Your task to perform on an android device: Look up the best rated Nike shoes on Nike.com Image 0: 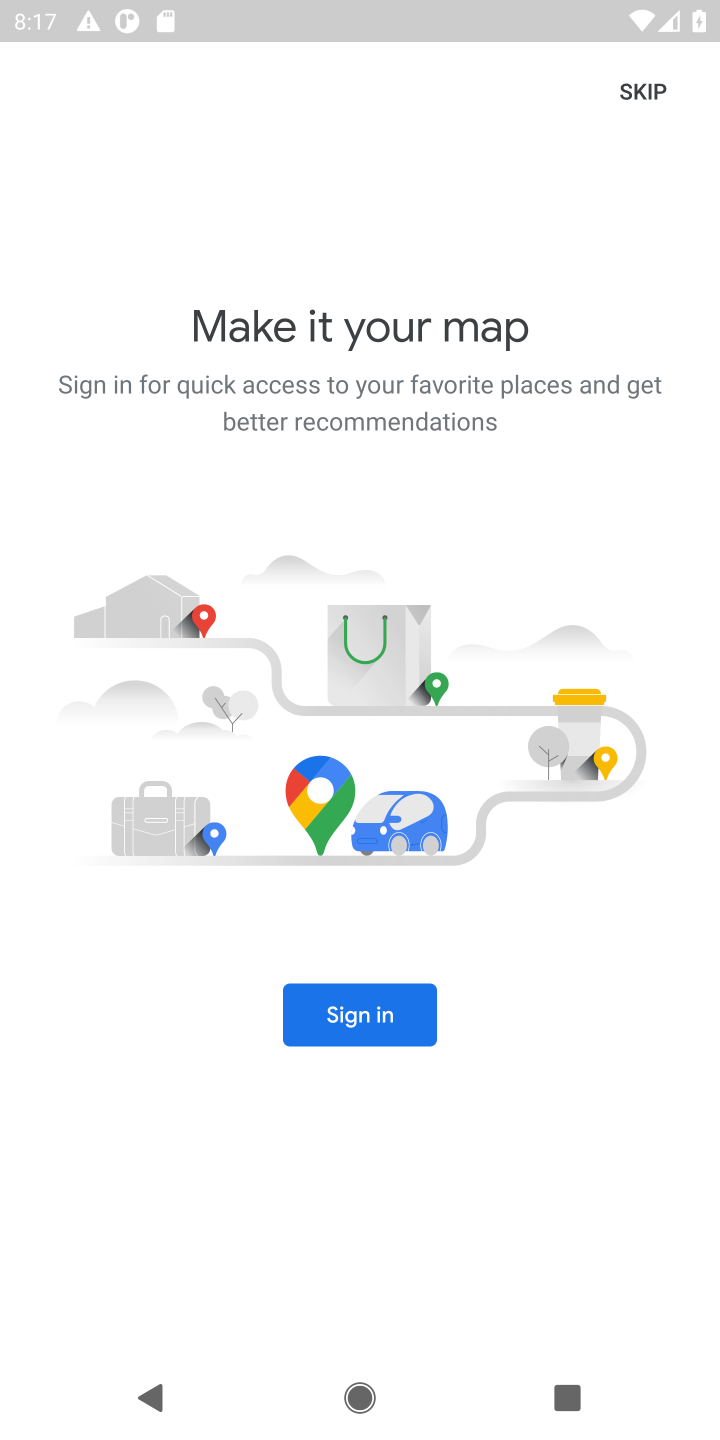
Step 0: press home button
Your task to perform on an android device: Look up the best rated Nike shoes on Nike.com Image 1: 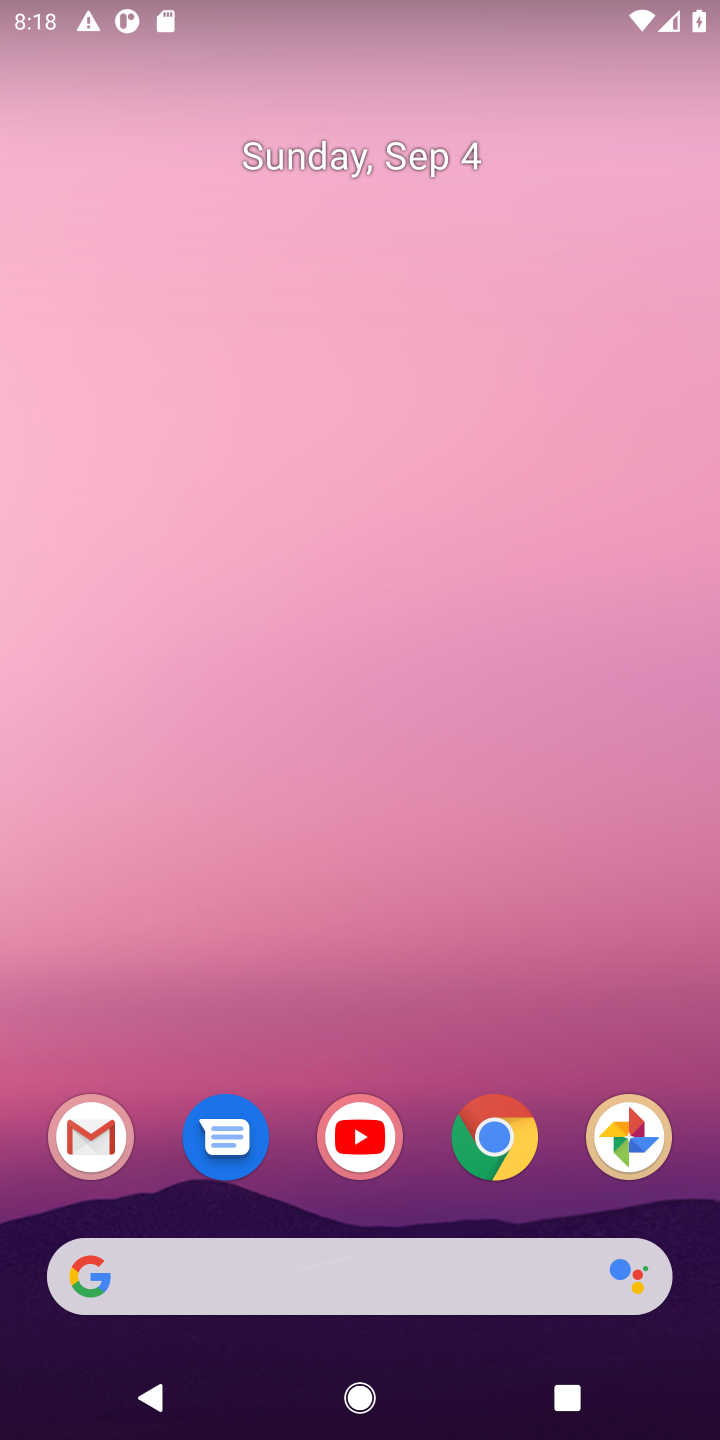
Step 1: click (492, 1137)
Your task to perform on an android device: Look up the best rated Nike shoes on Nike.com Image 2: 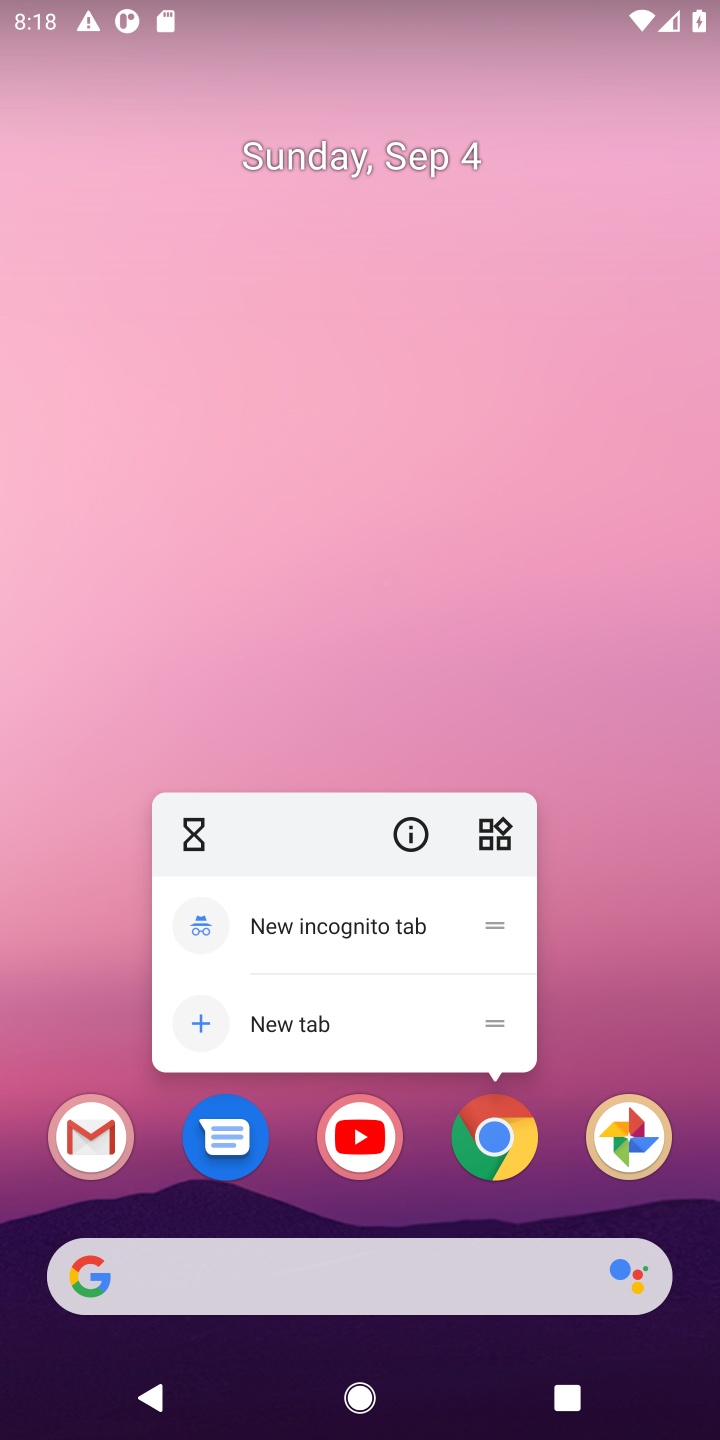
Step 2: click (496, 1138)
Your task to perform on an android device: Look up the best rated Nike shoes on Nike.com Image 3: 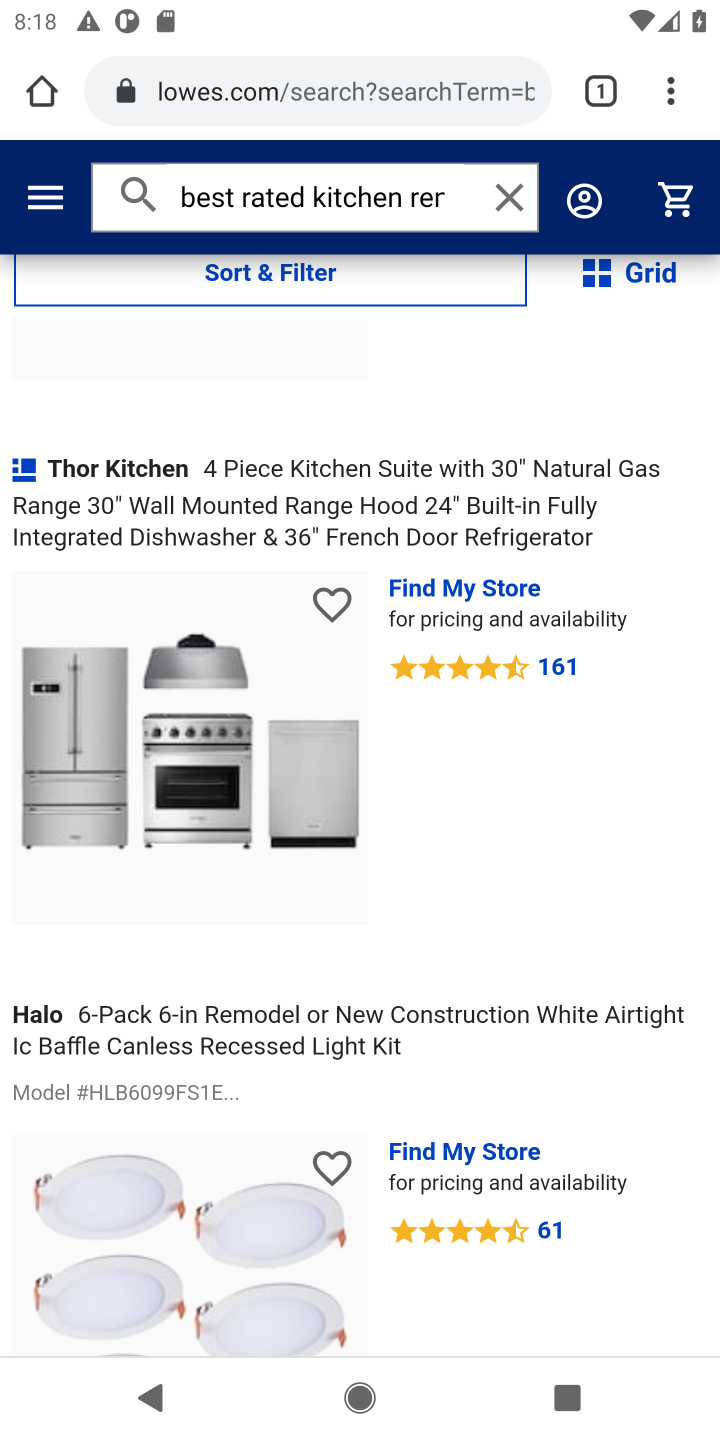
Step 3: click (500, 196)
Your task to perform on an android device: Look up the best rated Nike shoes on Nike.com Image 4: 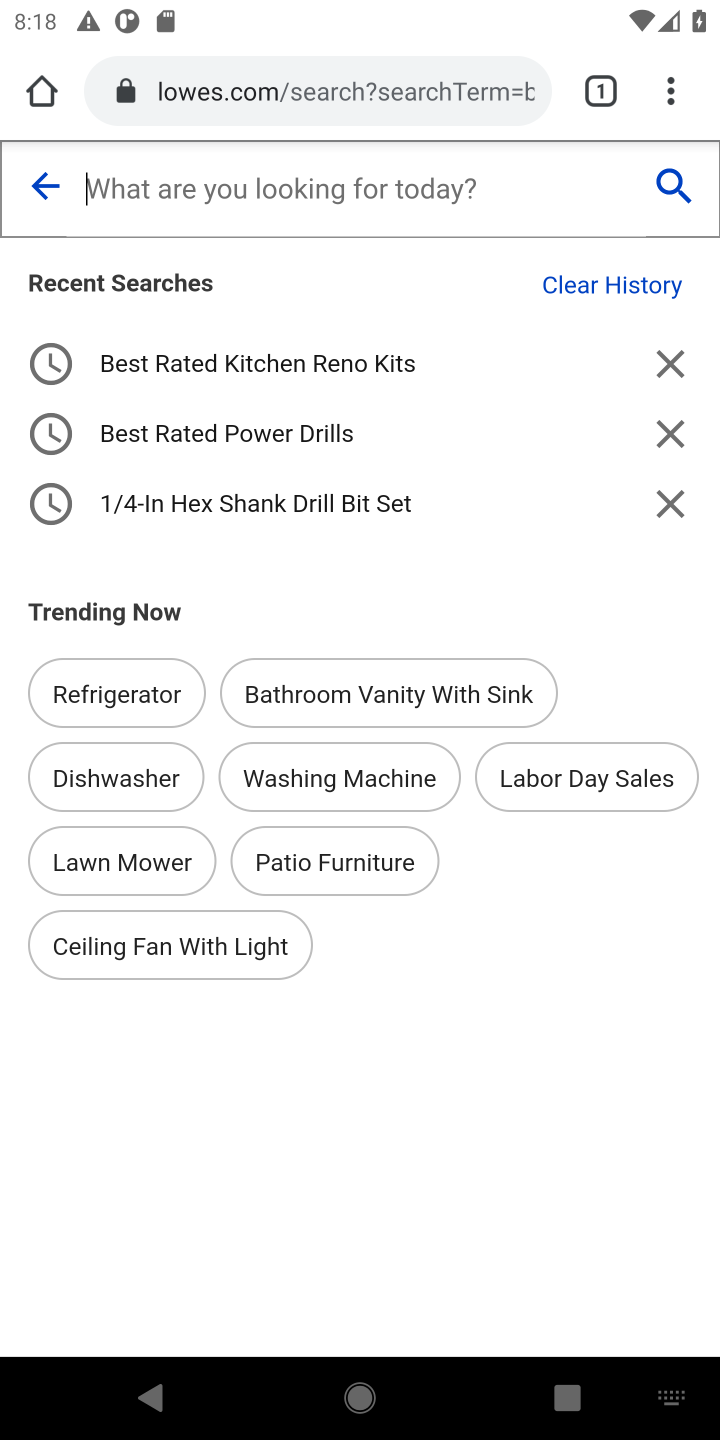
Step 4: click (509, 98)
Your task to perform on an android device: Look up the best rated Nike shoes on Nike.com Image 5: 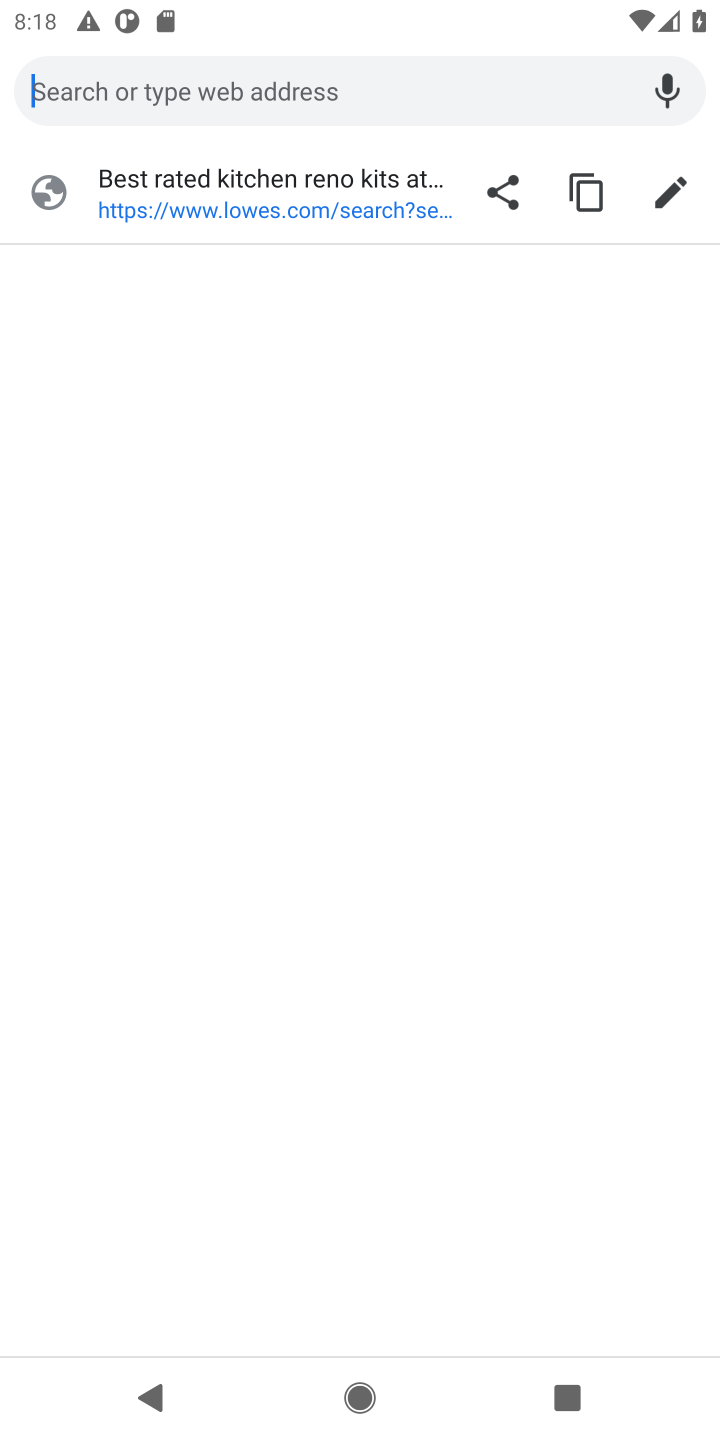
Step 5: type "Nike.com"
Your task to perform on an android device: Look up the best rated Nike shoes on Nike.com Image 6: 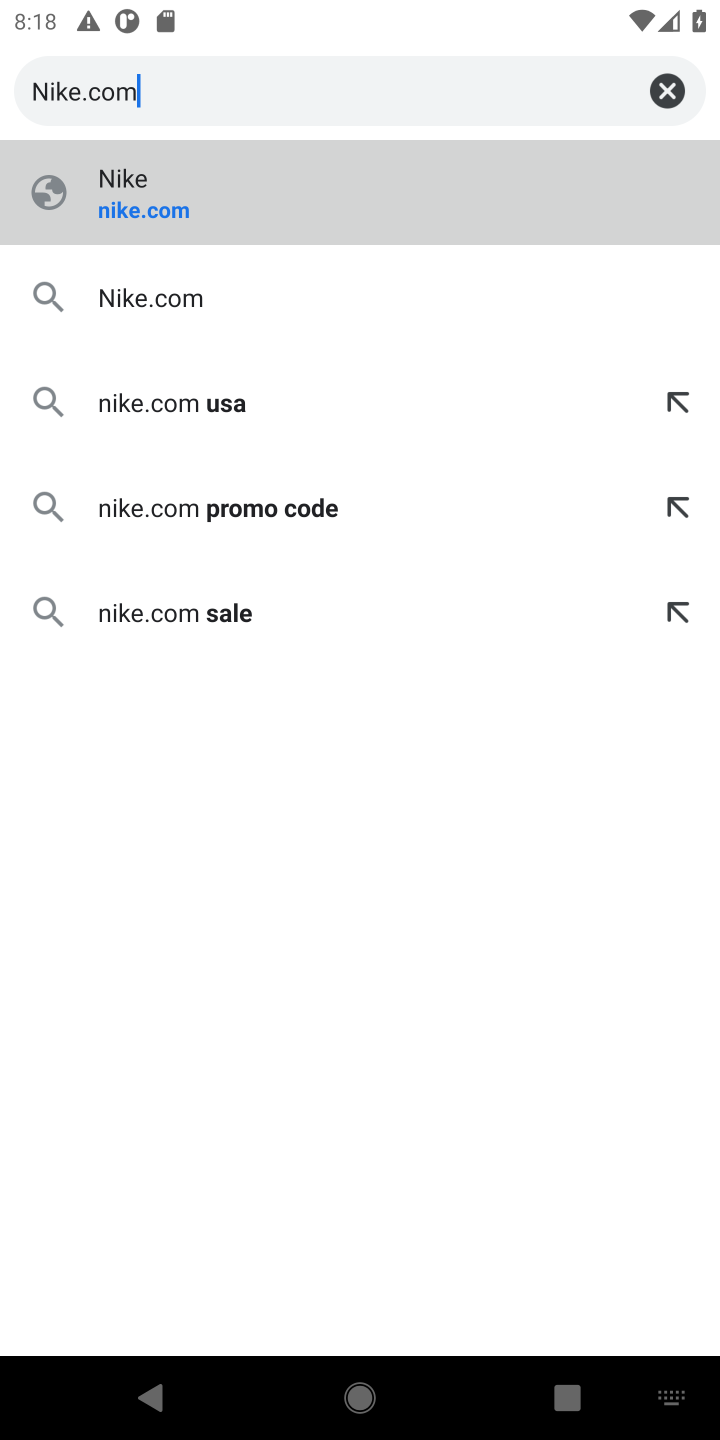
Step 6: click (187, 217)
Your task to perform on an android device: Look up the best rated Nike shoes on Nike.com Image 7: 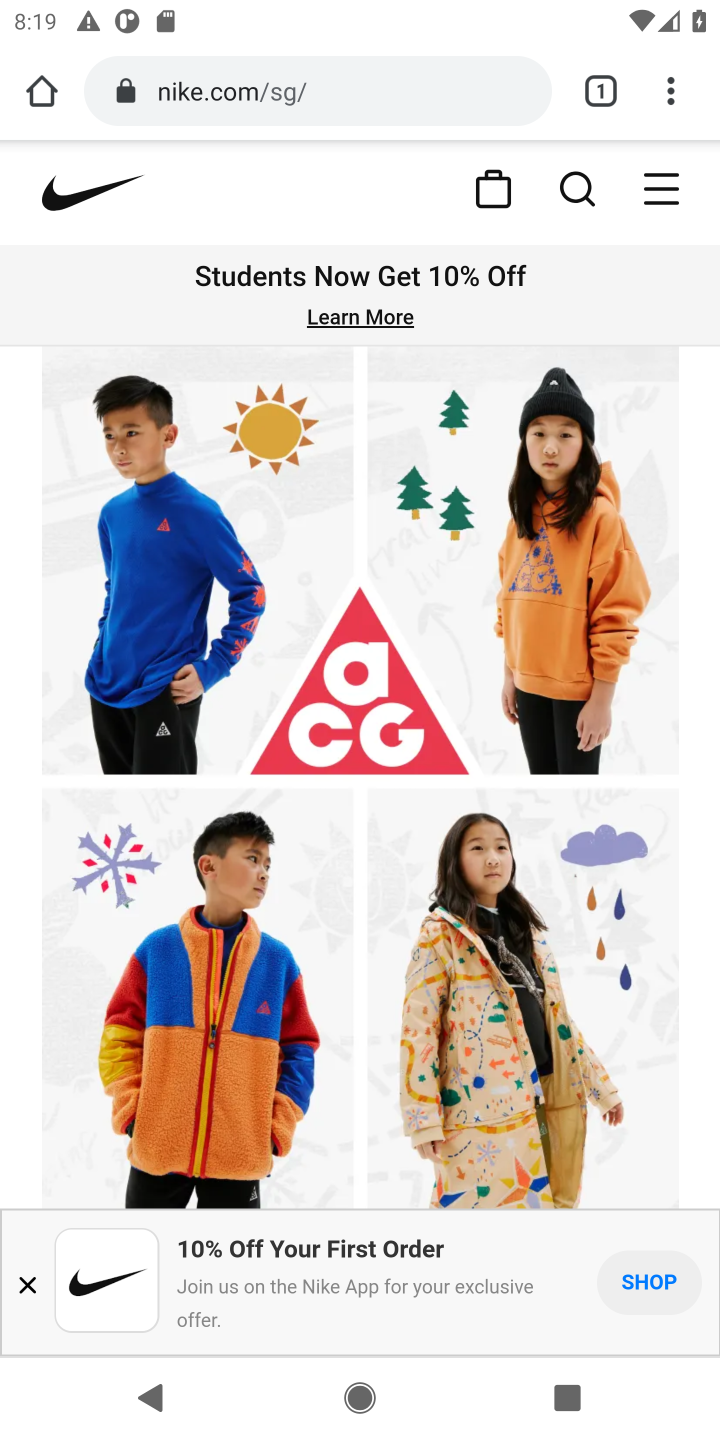
Step 7: click (26, 1286)
Your task to perform on an android device: Look up the best rated Nike shoes on Nike.com Image 8: 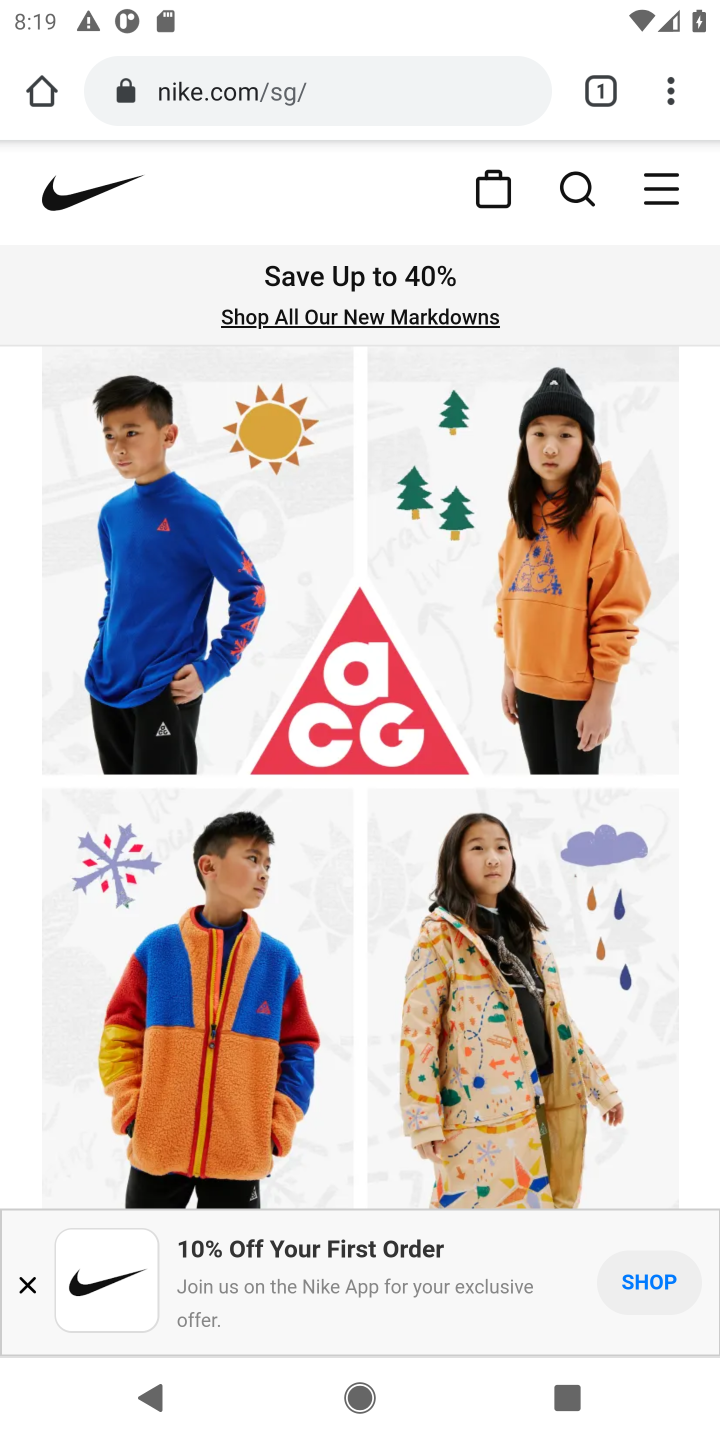
Step 8: click (568, 196)
Your task to perform on an android device: Look up the best rated Nike shoes on Nike.com Image 9: 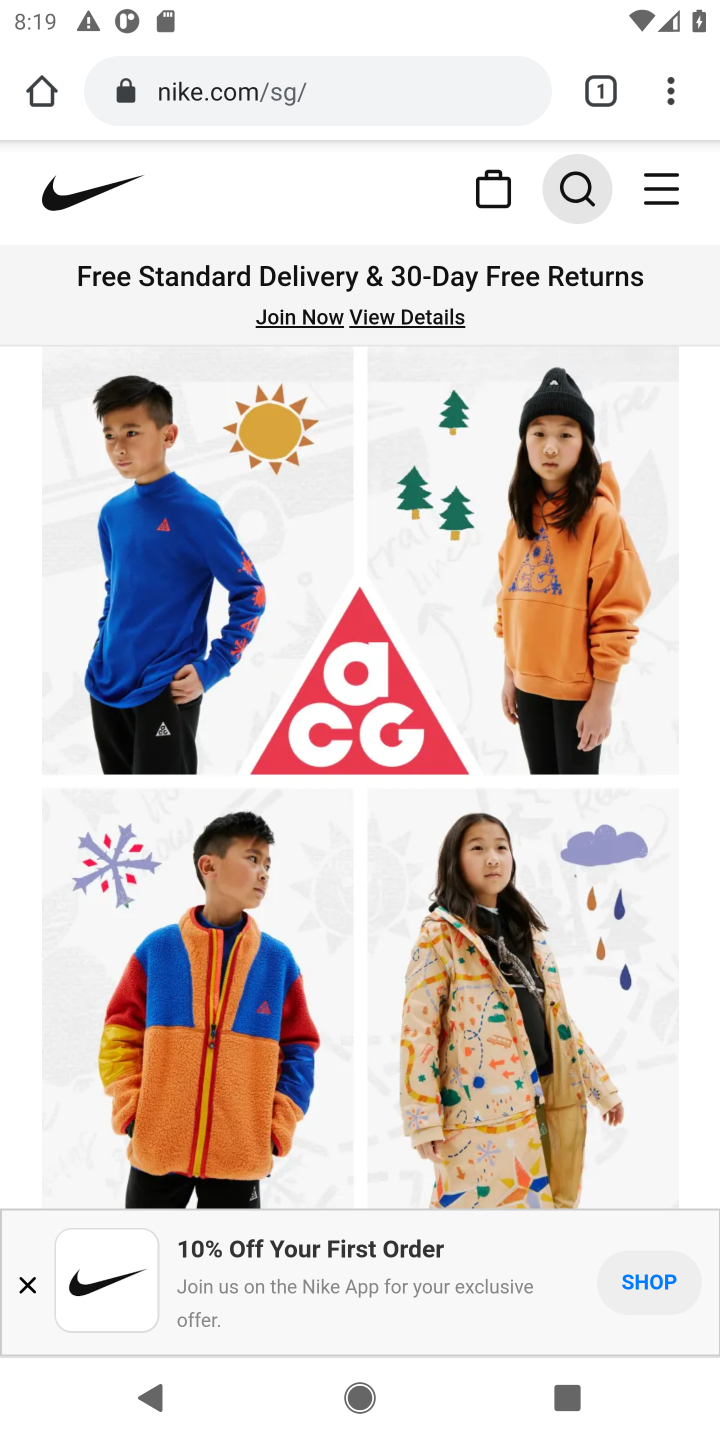
Step 9: click (581, 183)
Your task to perform on an android device: Look up the best rated Nike shoes on Nike.com Image 10: 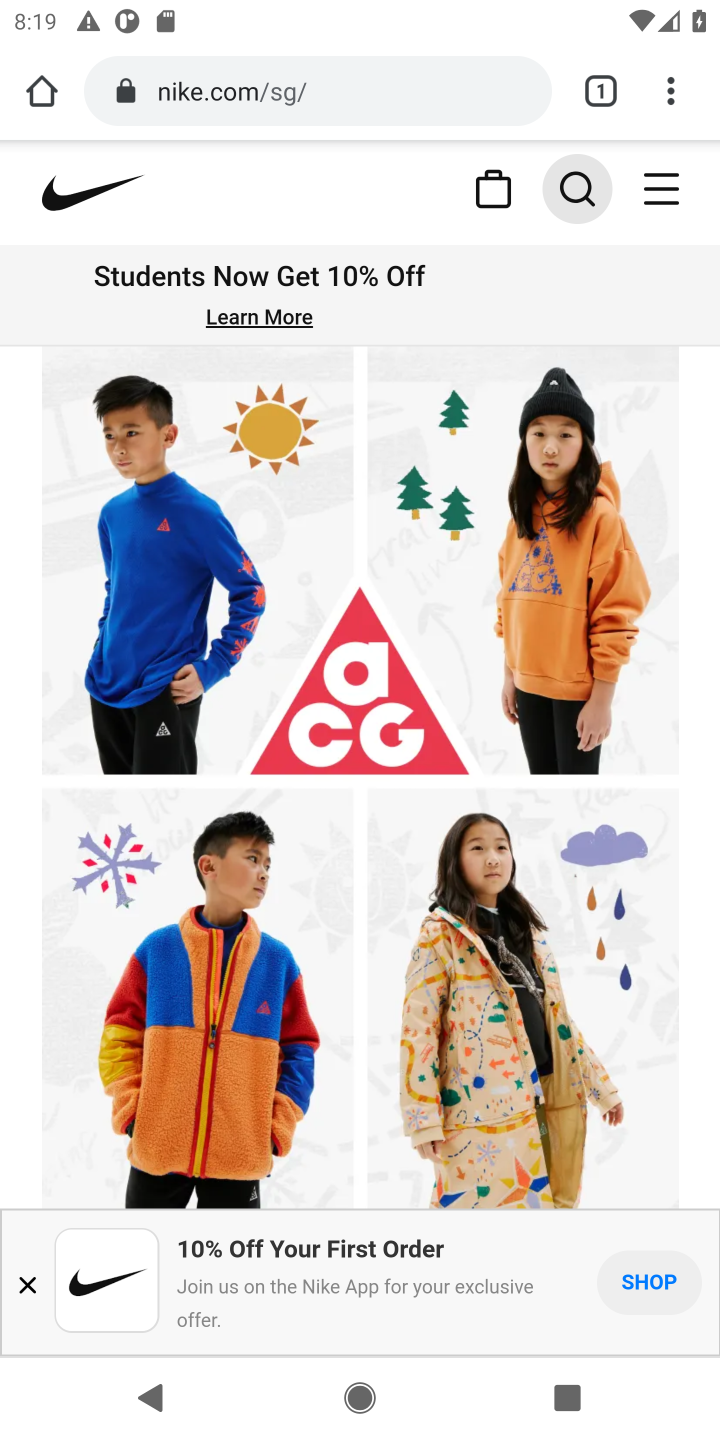
Step 10: click (566, 203)
Your task to perform on an android device: Look up the best rated Nike shoes on Nike.com Image 11: 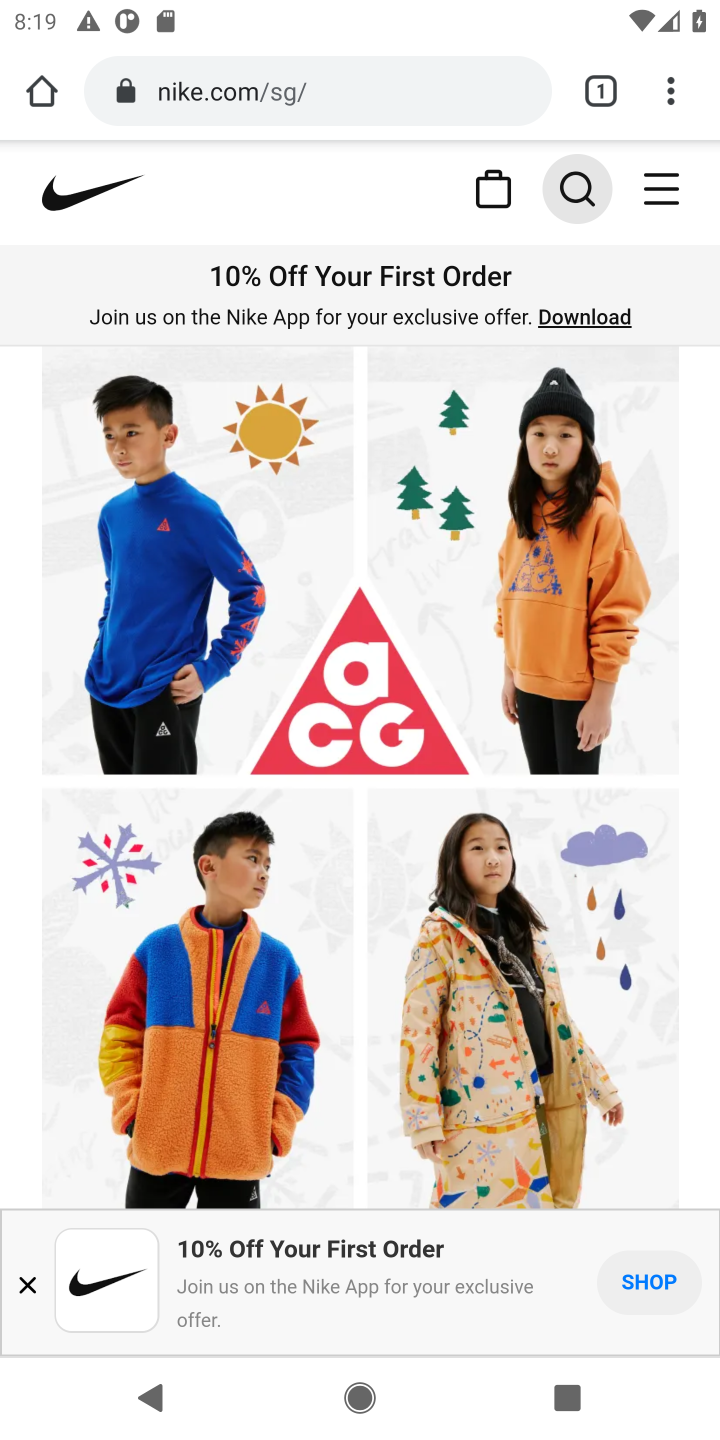
Step 11: click (399, 184)
Your task to perform on an android device: Look up the best rated Nike shoes on Nike.com Image 12: 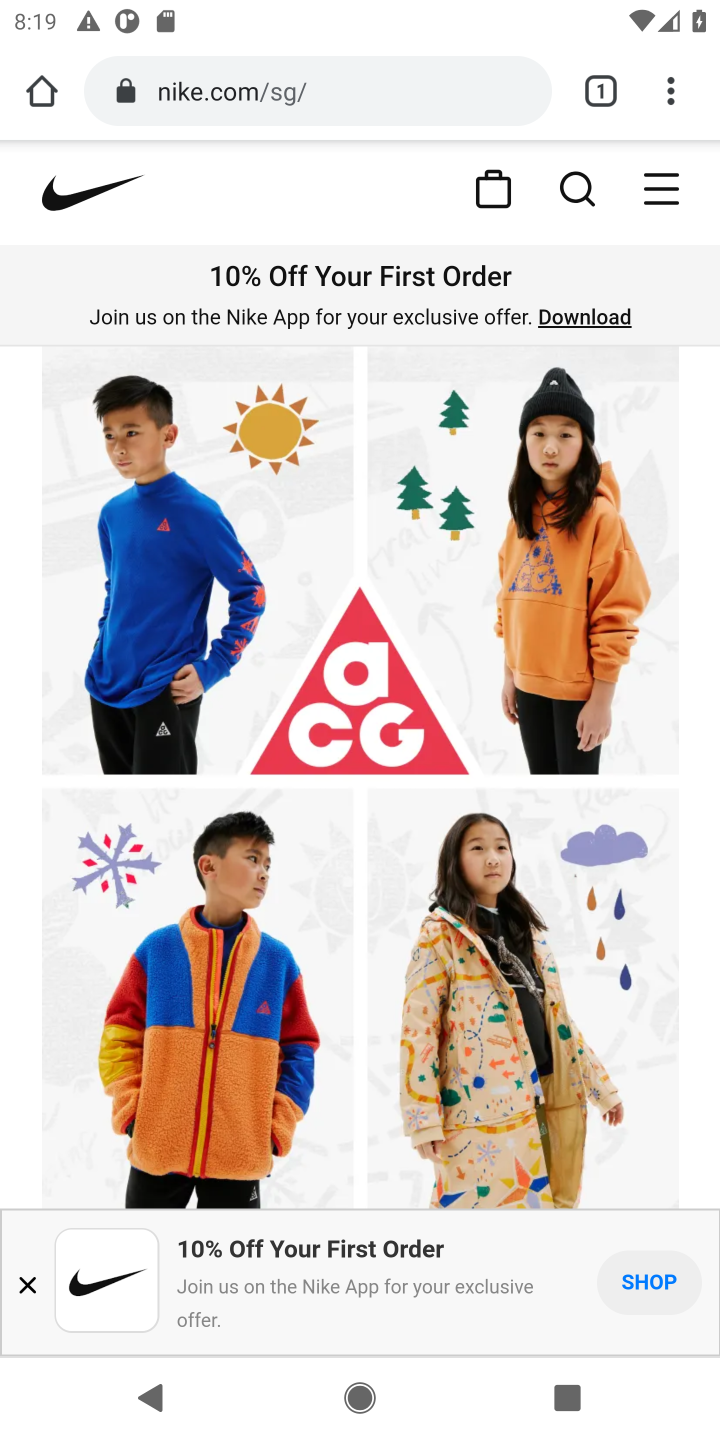
Step 12: click (569, 180)
Your task to perform on an android device: Look up the best rated Nike shoes on Nike.com Image 13: 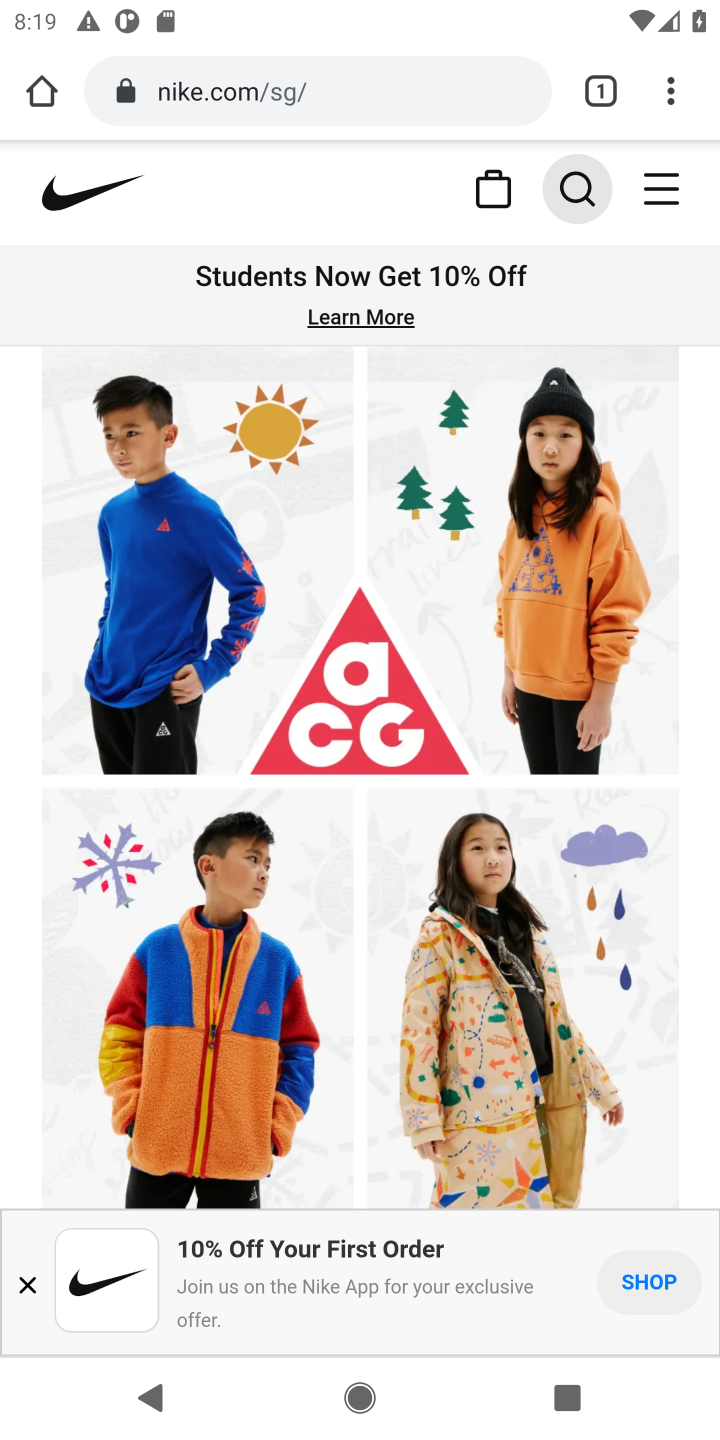
Step 13: click (585, 189)
Your task to perform on an android device: Look up the best rated Nike shoes on Nike.com Image 14: 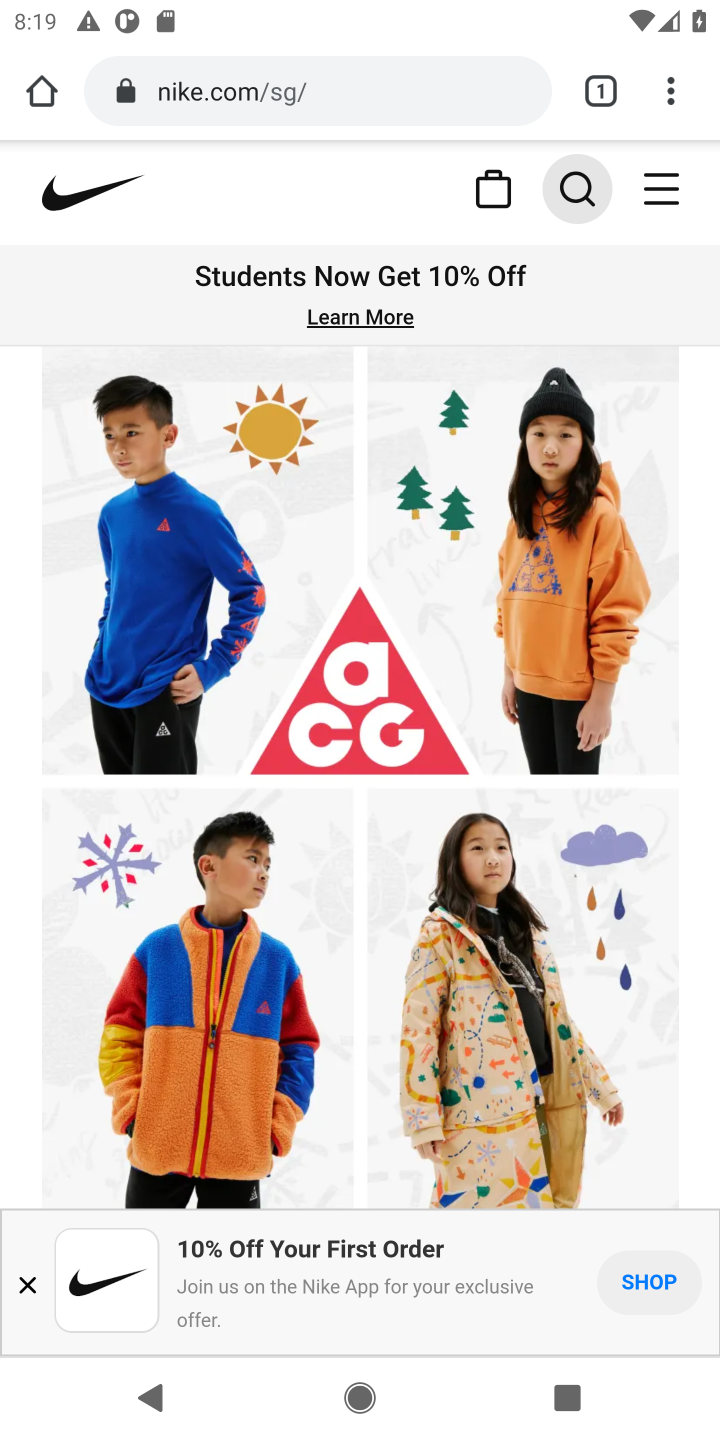
Step 14: click (565, 189)
Your task to perform on an android device: Look up the best rated Nike shoes on Nike.com Image 15: 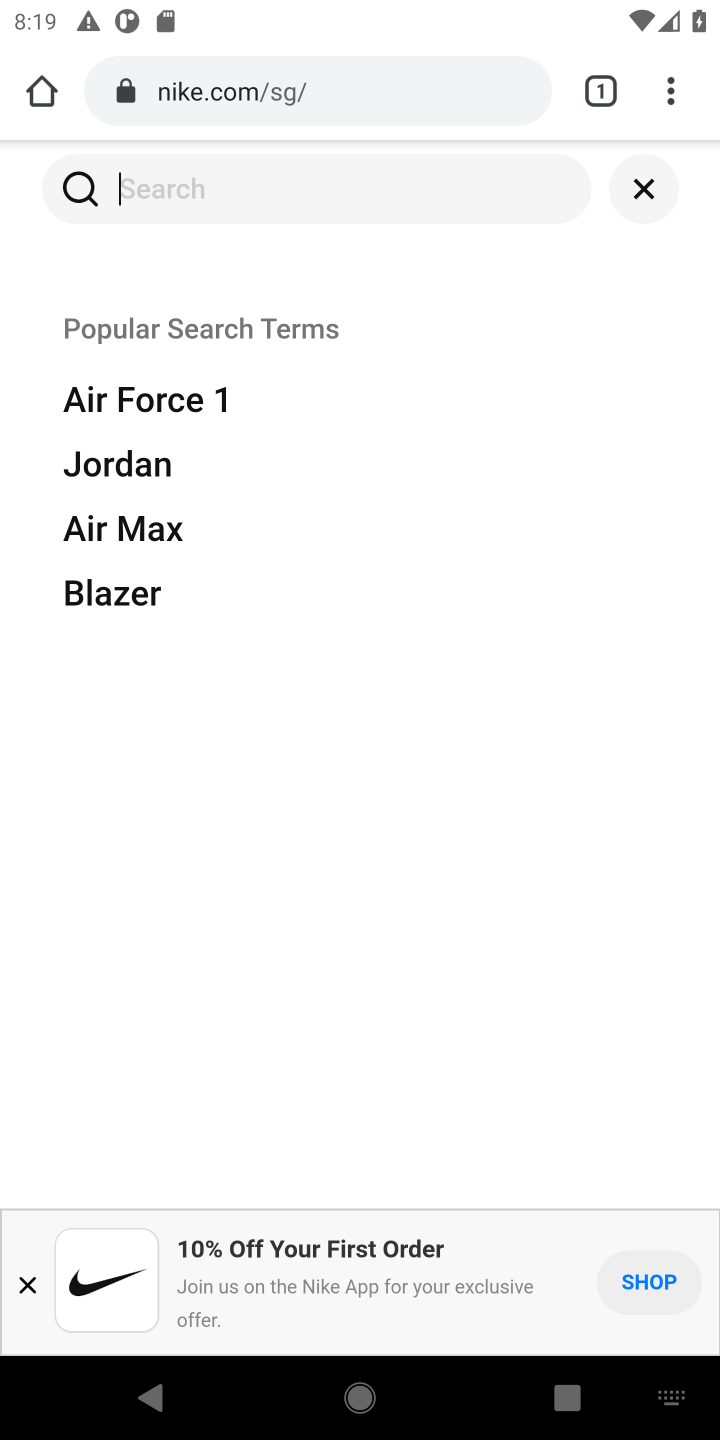
Step 15: click (377, 195)
Your task to perform on an android device: Look up the best rated Nike shoes on Nike.com Image 16: 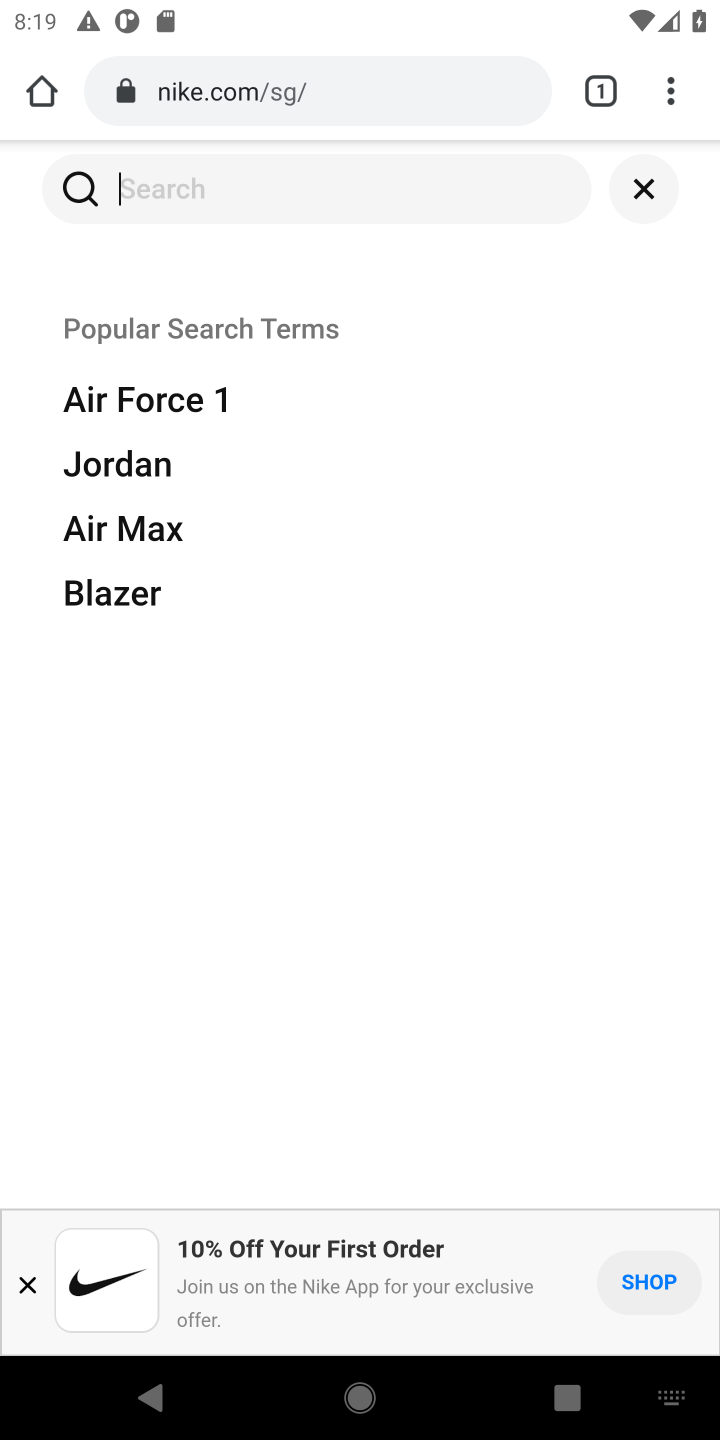
Step 16: type "best rated nike shoes"
Your task to perform on an android device: Look up the best rated Nike shoes on Nike.com Image 17: 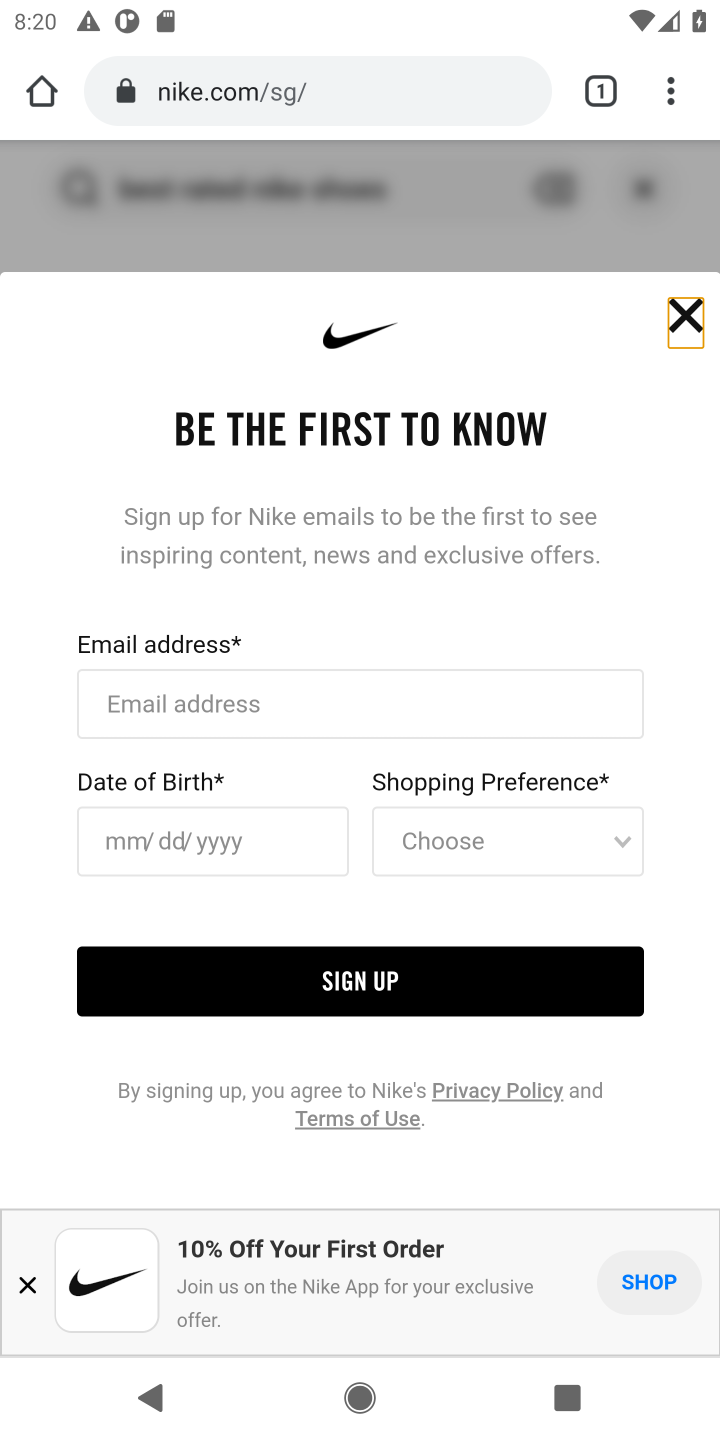
Step 17: click (676, 316)
Your task to perform on an android device: Look up the best rated Nike shoes on Nike.com Image 18: 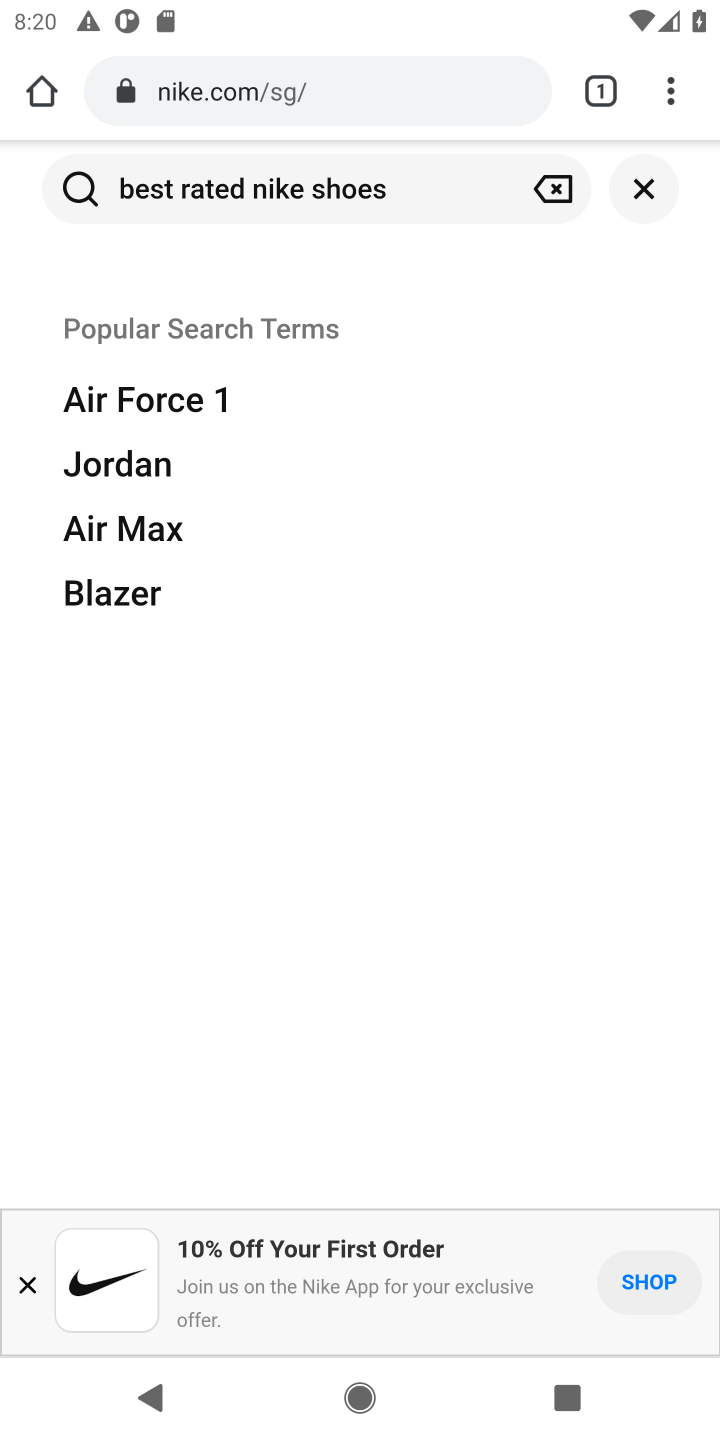
Step 18: click (65, 189)
Your task to perform on an android device: Look up the best rated Nike shoes on Nike.com Image 19: 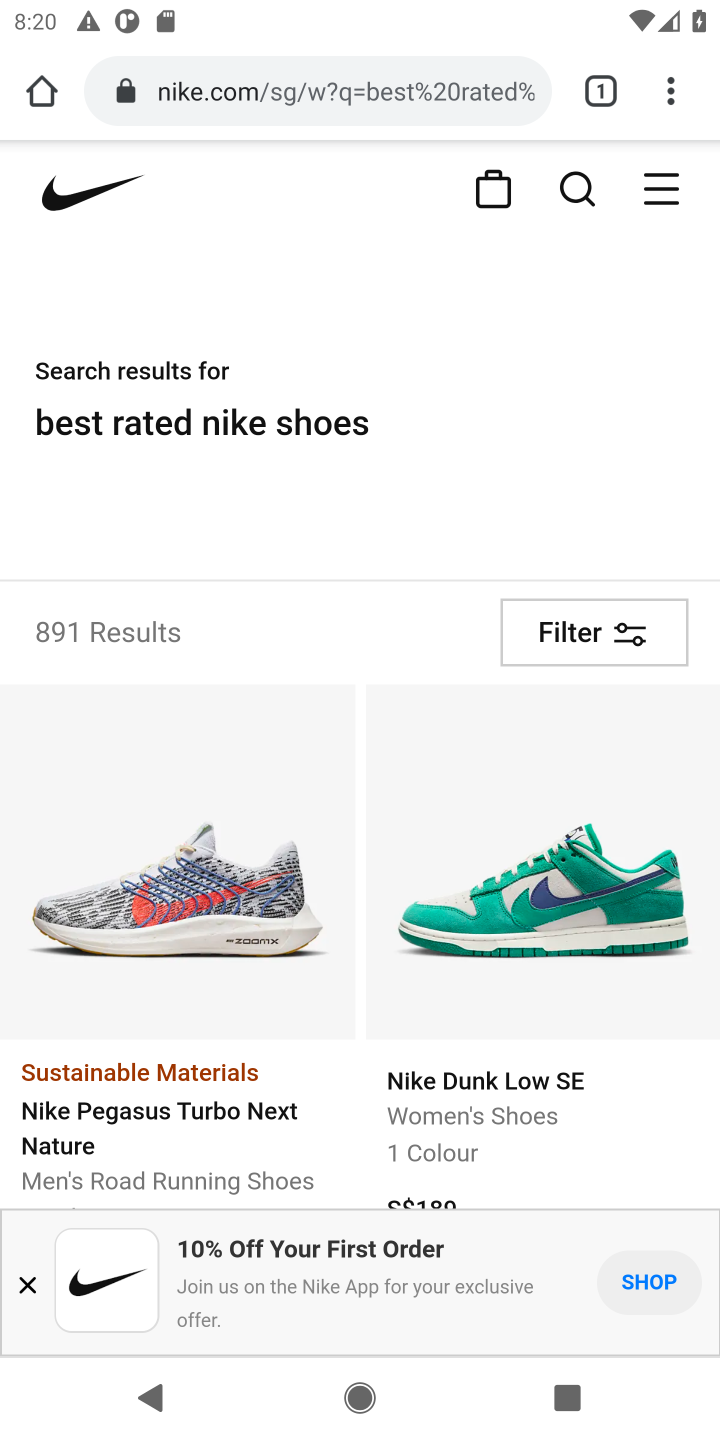
Step 19: drag from (322, 1114) to (423, 656)
Your task to perform on an android device: Look up the best rated Nike shoes on Nike.com Image 20: 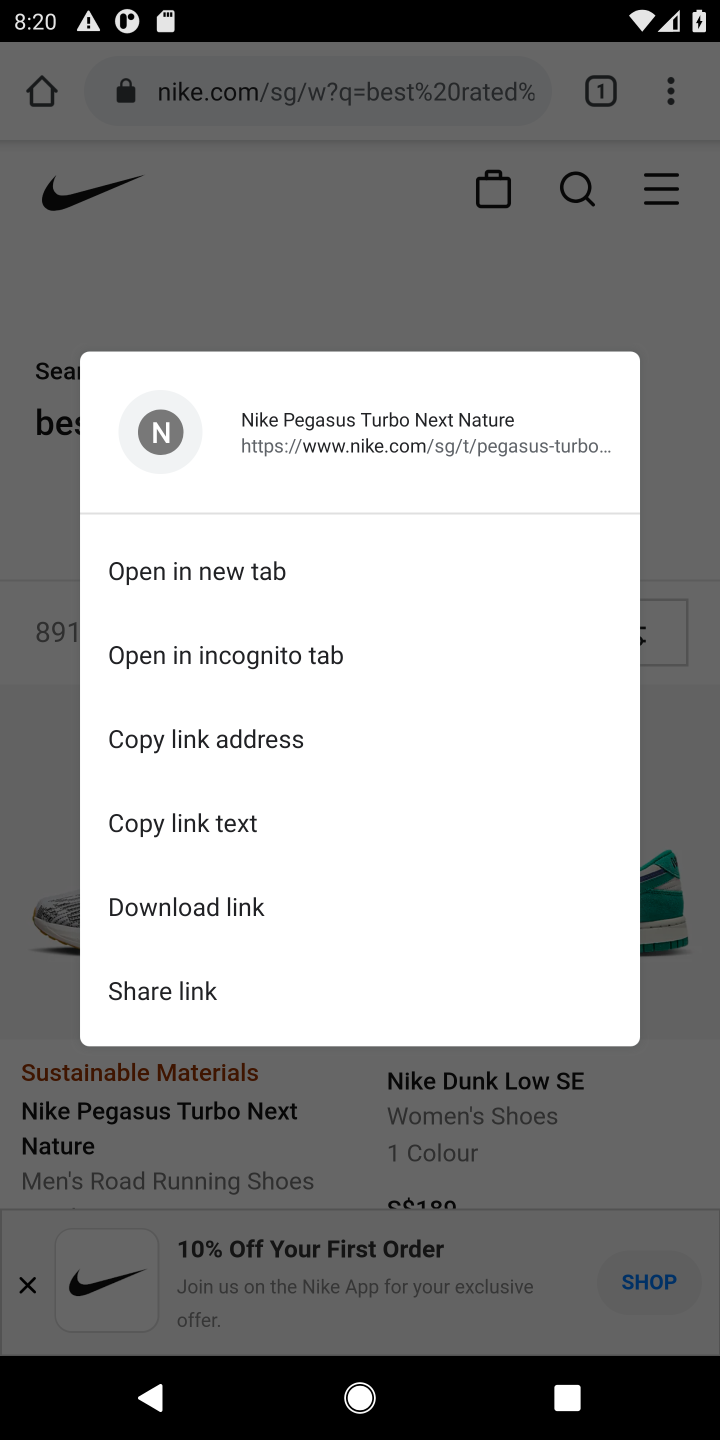
Step 20: click (331, 289)
Your task to perform on an android device: Look up the best rated Nike shoes on Nike.com Image 21: 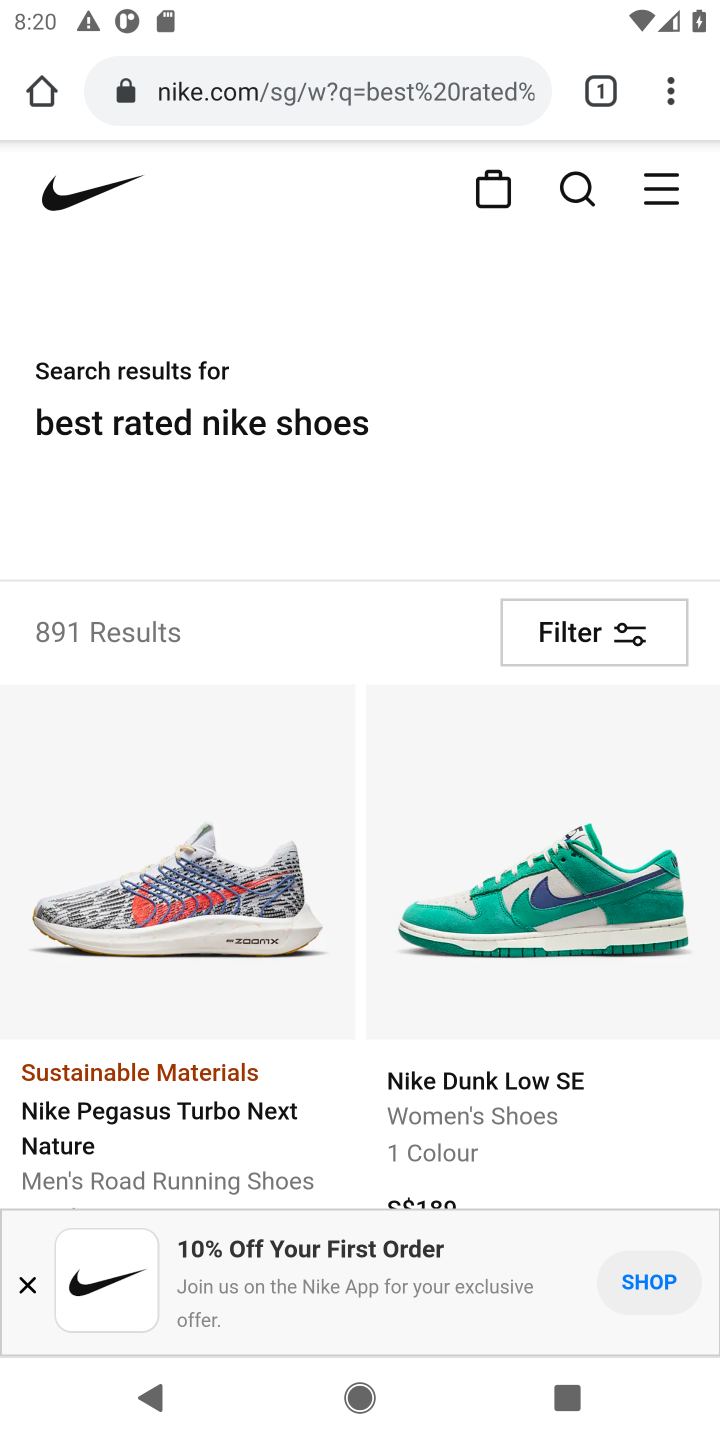
Step 21: task complete